Your task to perform on an android device: turn on bluetooth scan Image 0: 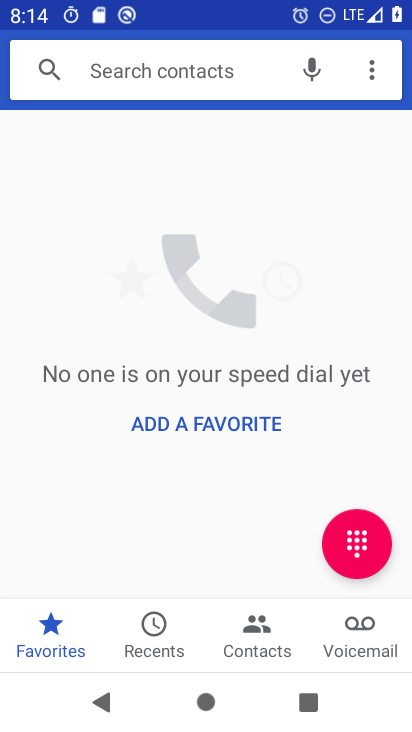
Step 0: press home button
Your task to perform on an android device: turn on bluetooth scan Image 1: 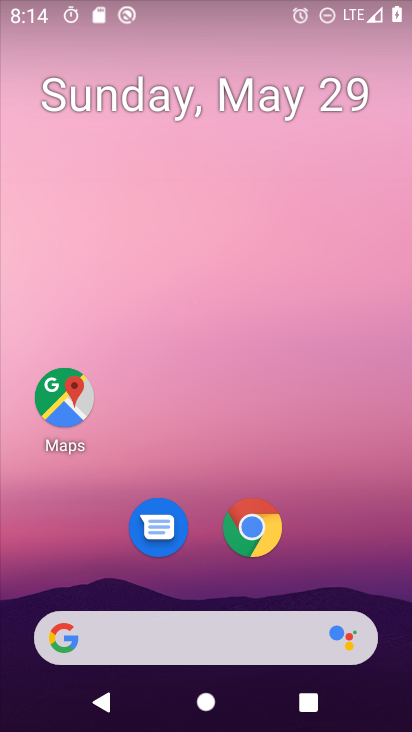
Step 1: drag from (396, 630) to (297, 20)
Your task to perform on an android device: turn on bluetooth scan Image 2: 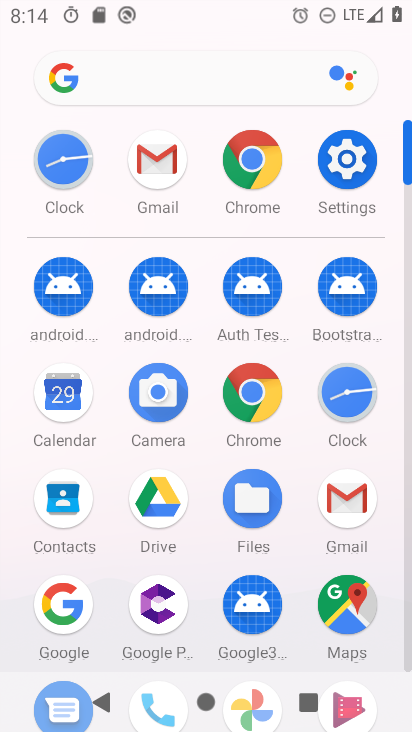
Step 2: click (350, 168)
Your task to perform on an android device: turn on bluetooth scan Image 3: 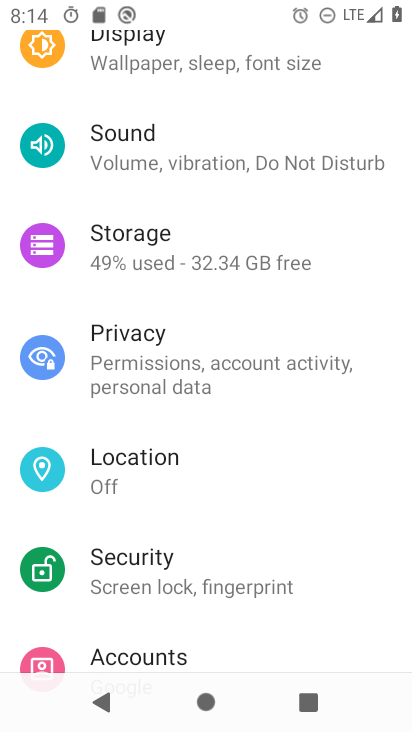
Step 3: click (177, 466)
Your task to perform on an android device: turn on bluetooth scan Image 4: 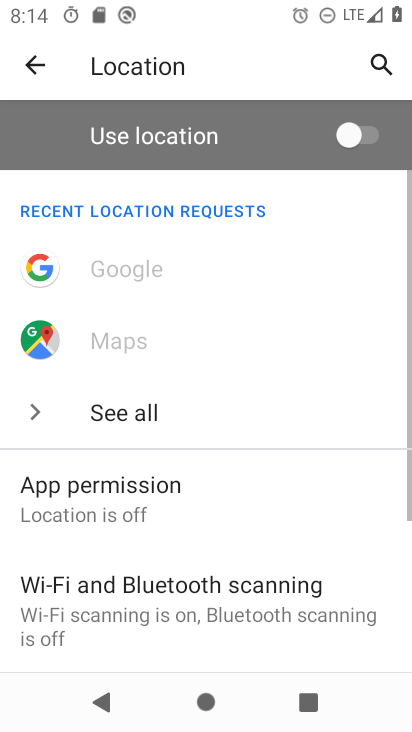
Step 4: click (287, 590)
Your task to perform on an android device: turn on bluetooth scan Image 5: 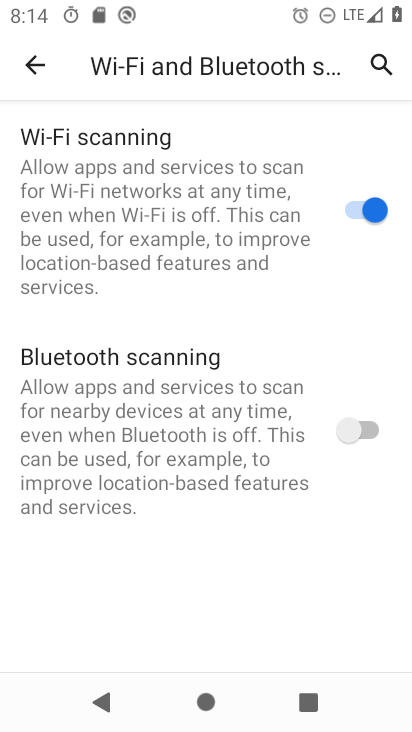
Step 5: click (355, 427)
Your task to perform on an android device: turn on bluetooth scan Image 6: 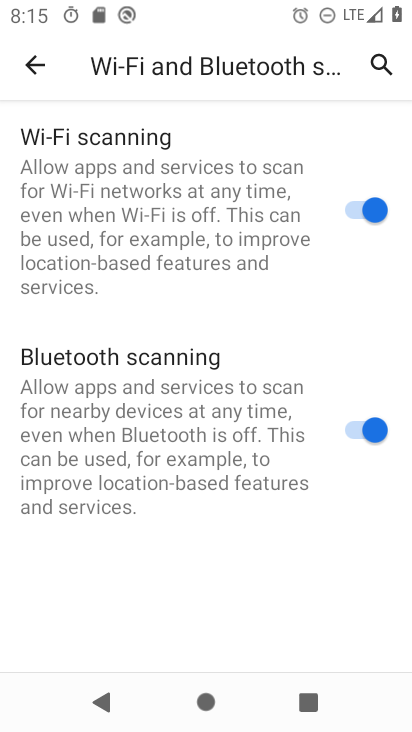
Step 6: task complete